Your task to perform on an android device: Open ESPN.com Image 0: 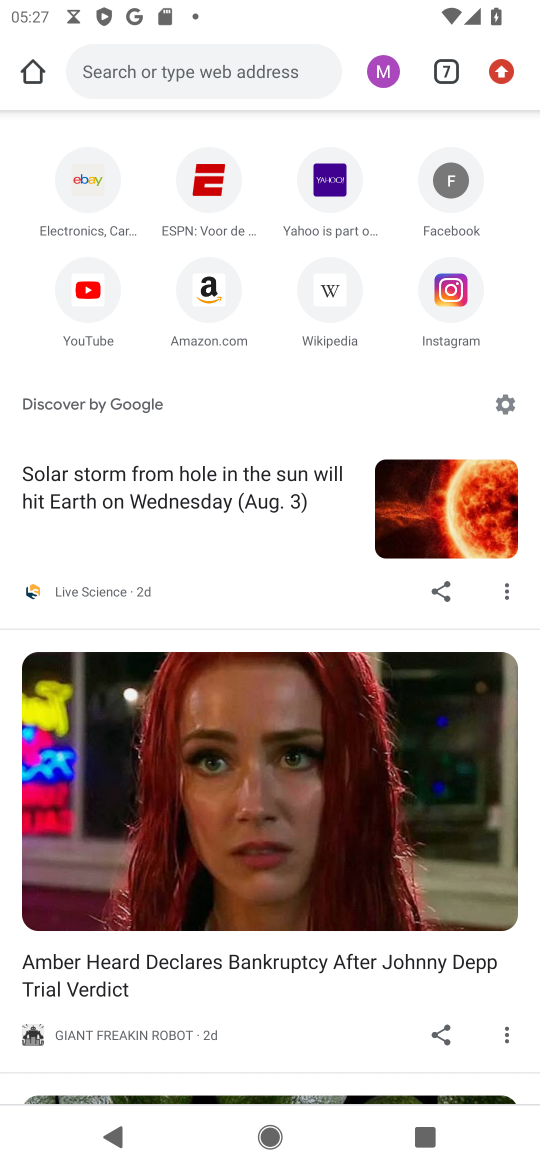
Step 0: click (201, 192)
Your task to perform on an android device: Open ESPN.com Image 1: 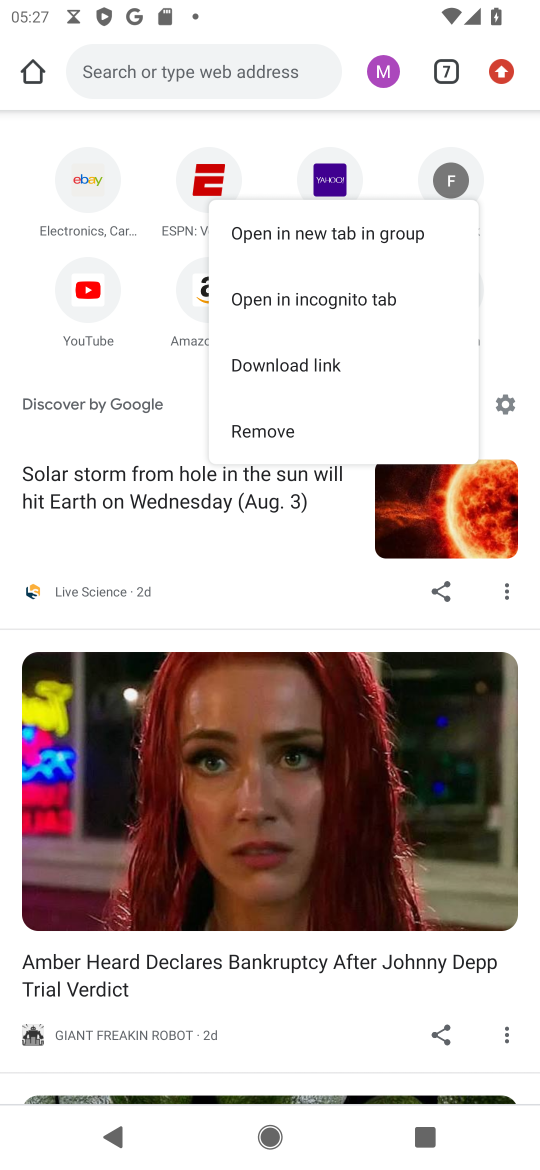
Step 1: click (201, 197)
Your task to perform on an android device: Open ESPN.com Image 2: 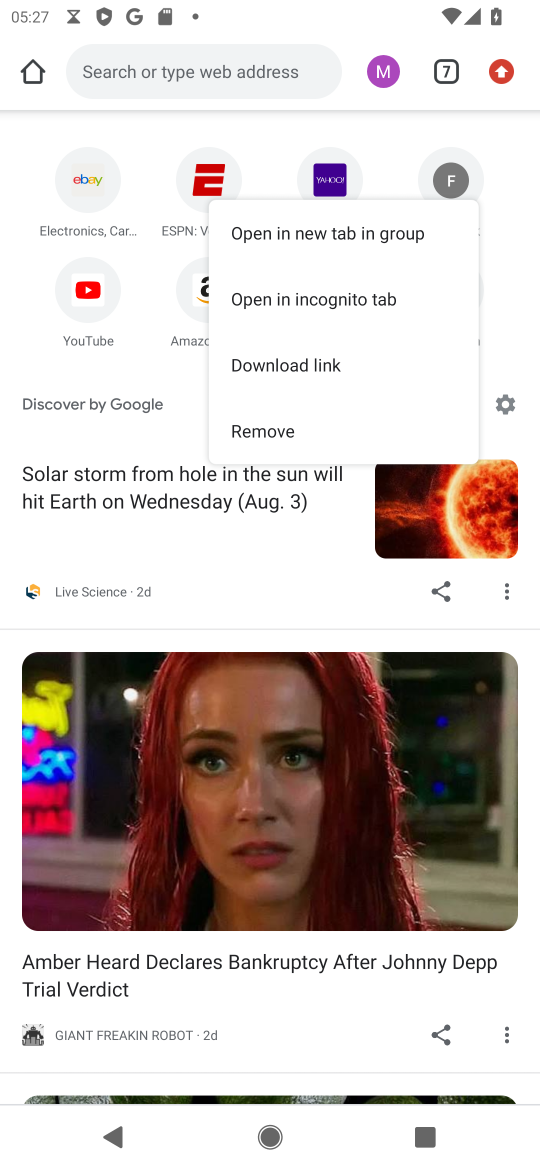
Step 2: click (209, 179)
Your task to perform on an android device: Open ESPN.com Image 3: 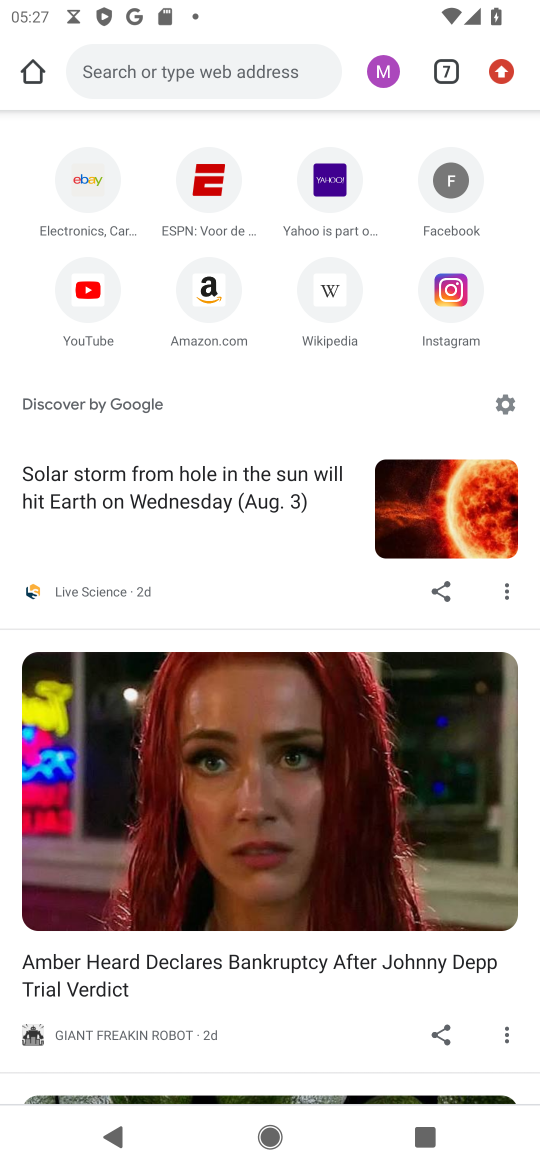
Step 3: click (209, 180)
Your task to perform on an android device: Open ESPN.com Image 4: 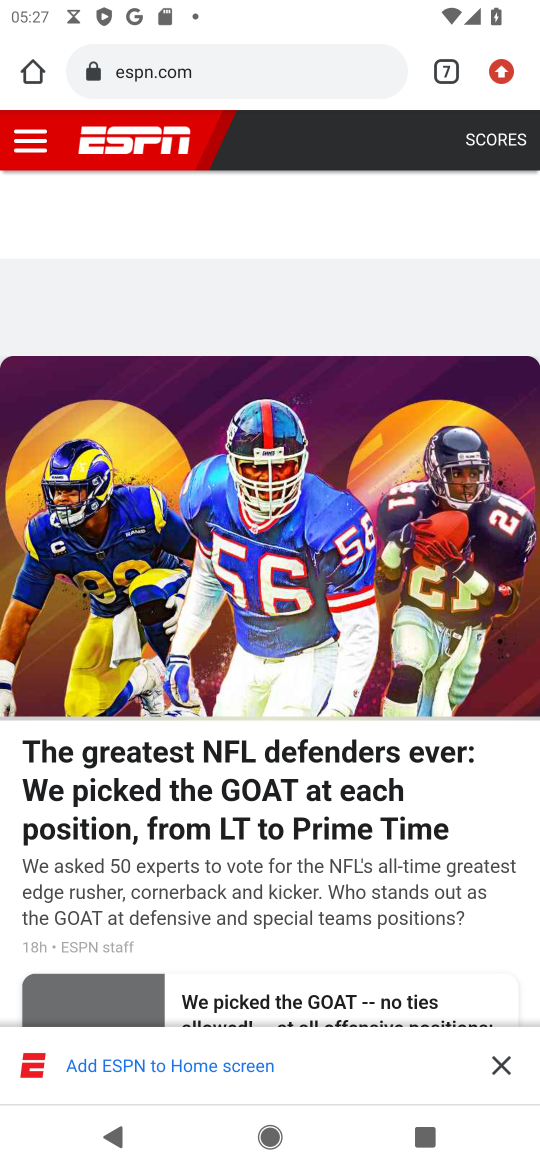
Step 4: task complete